Your task to perform on an android device: Search for "logitech g910" on bestbuy, select the first entry, add it to the cart, then select checkout. Image 0: 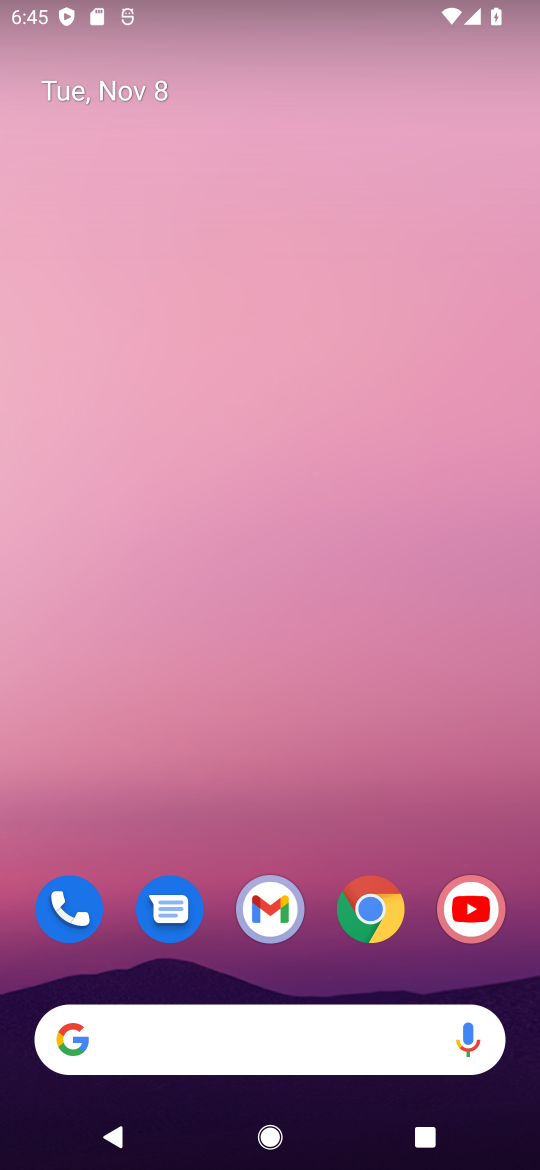
Step 0: press home button
Your task to perform on an android device: Search for "logitech g910" on bestbuy, select the first entry, add it to the cart, then select checkout. Image 1: 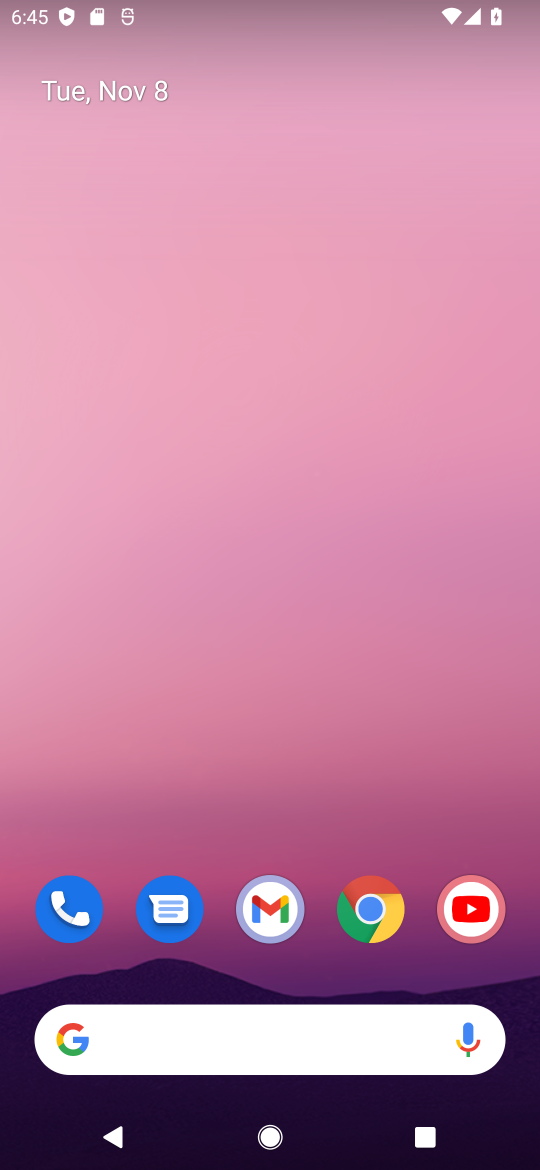
Step 1: click (374, 910)
Your task to perform on an android device: Search for "logitech g910" on bestbuy, select the first entry, add it to the cart, then select checkout. Image 2: 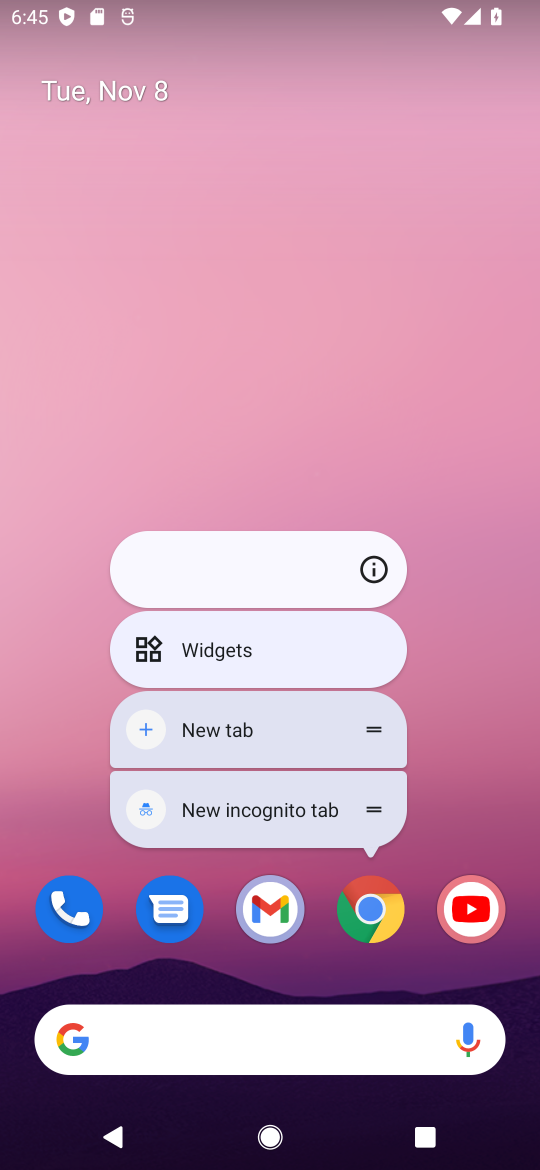
Step 2: click (363, 913)
Your task to perform on an android device: Search for "logitech g910" on bestbuy, select the first entry, add it to the cart, then select checkout. Image 3: 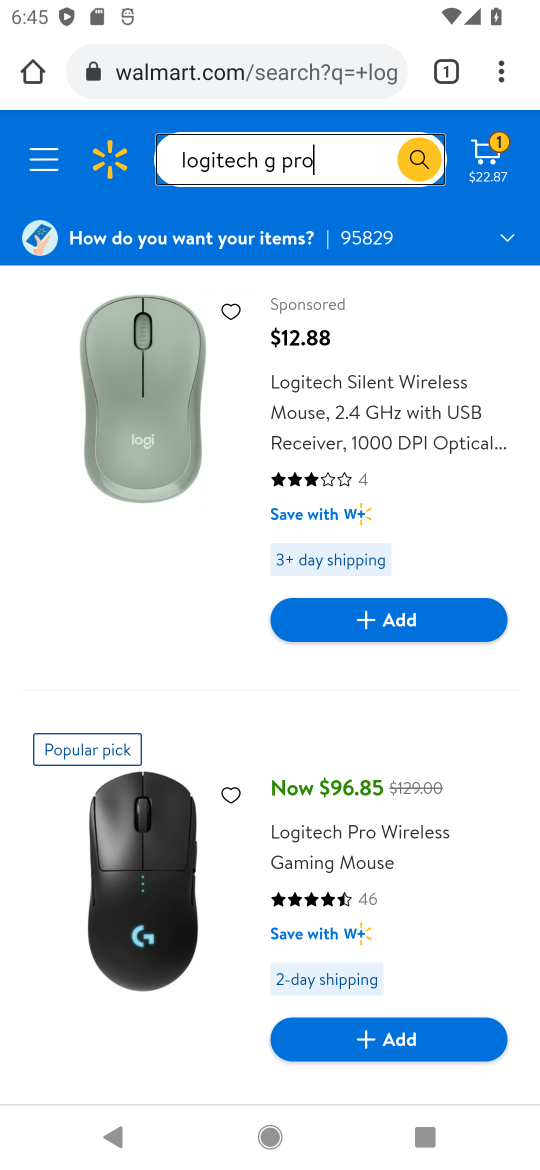
Step 3: click (347, 69)
Your task to perform on an android device: Search for "logitech g910" on bestbuy, select the first entry, add it to the cart, then select checkout. Image 4: 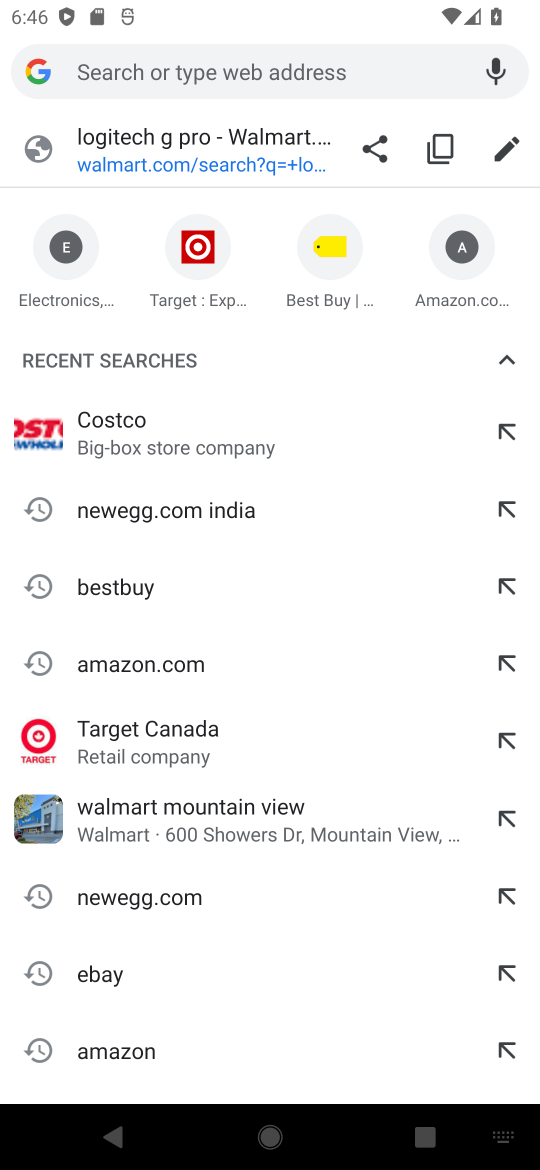
Step 4: click (309, 286)
Your task to perform on an android device: Search for "logitech g910" on bestbuy, select the first entry, add it to the cart, then select checkout. Image 5: 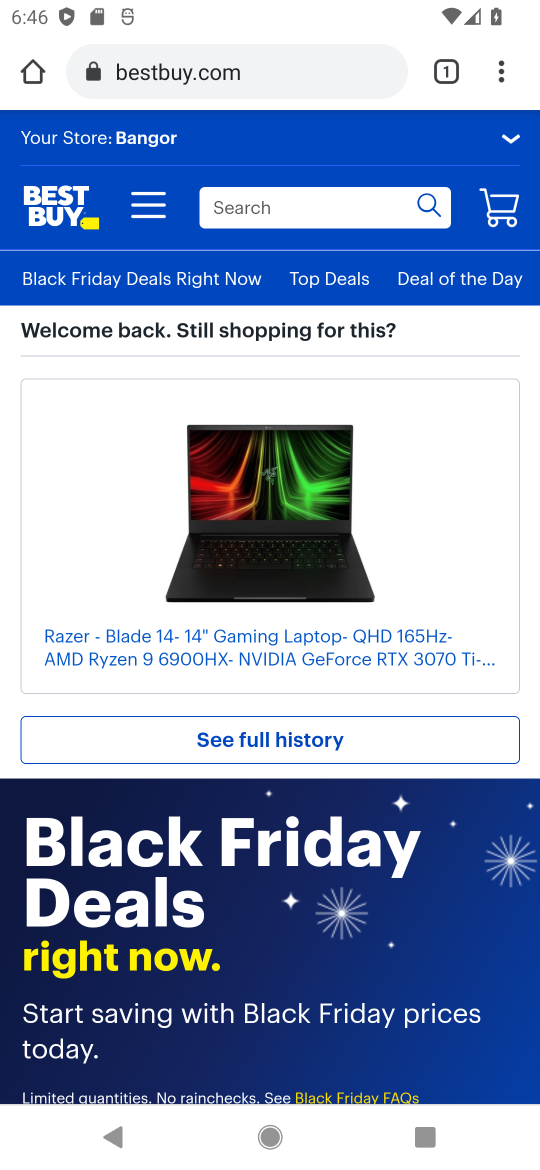
Step 5: click (330, 199)
Your task to perform on an android device: Search for "logitech g910" on bestbuy, select the first entry, add it to the cart, then select checkout. Image 6: 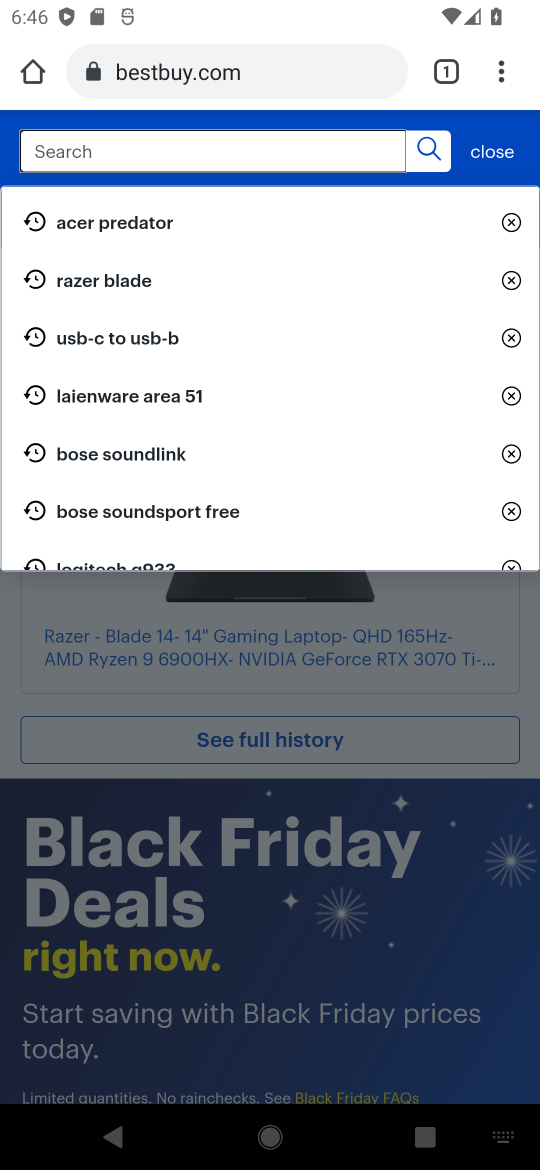
Step 6: type "logitech g910"
Your task to perform on an android device: Search for "logitech g910" on bestbuy, select the first entry, add it to the cart, then select checkout. Image 7: 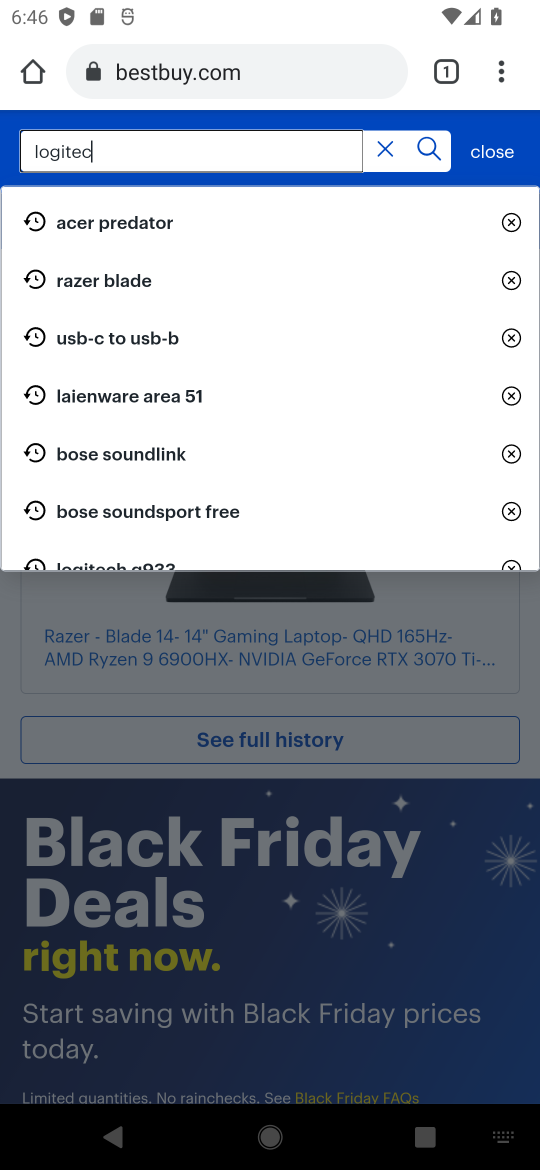
Step 7: press enter
Your task to perform on an android device: Search for "logitech g910" on bestbuy, select the first entry, add it to the cart, then select checkout. Image 8: 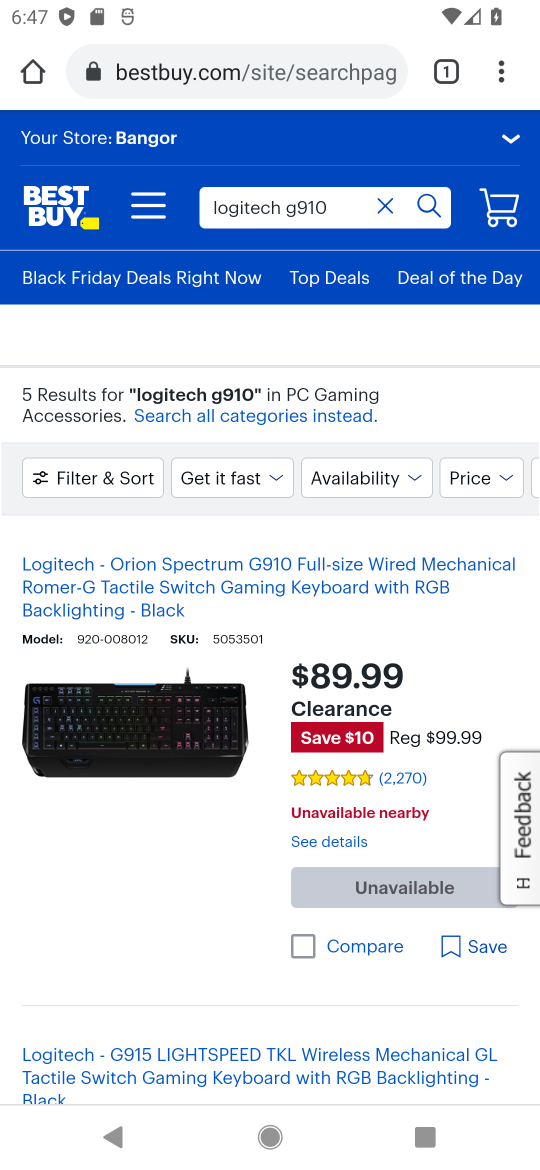
Step 8: task complete